Your task to perform on an android device: turn notification dots off Image 0: 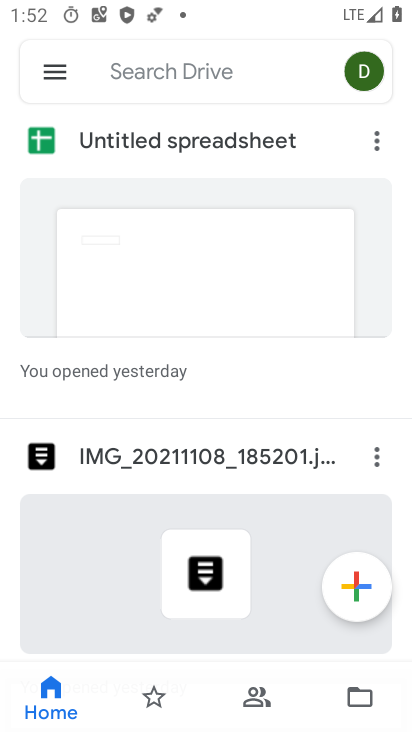
Step 0: press home button
Your task to perform on an android device: turn notification dots off Image 1: 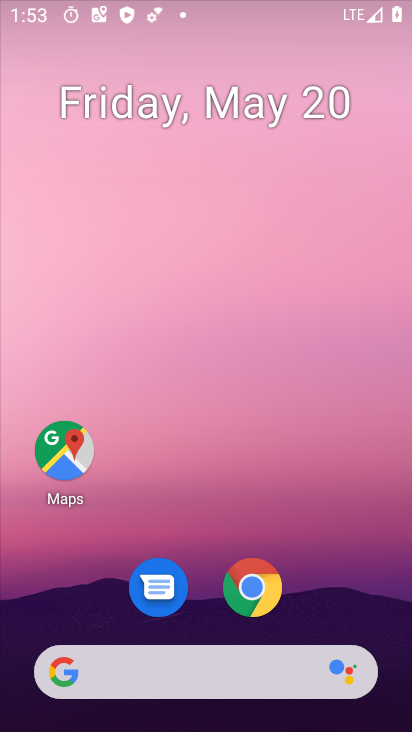
Step 1: drag from (353, 563) to (238, 81)
Your task to perform on an android device: turn notification dots off Image 2: 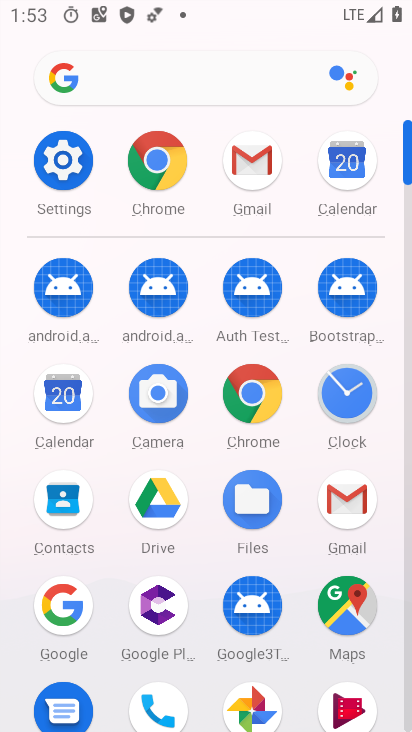
Step 2: click (63, 165)
Your task to perform on an android device: turn notification dots off Image 3: 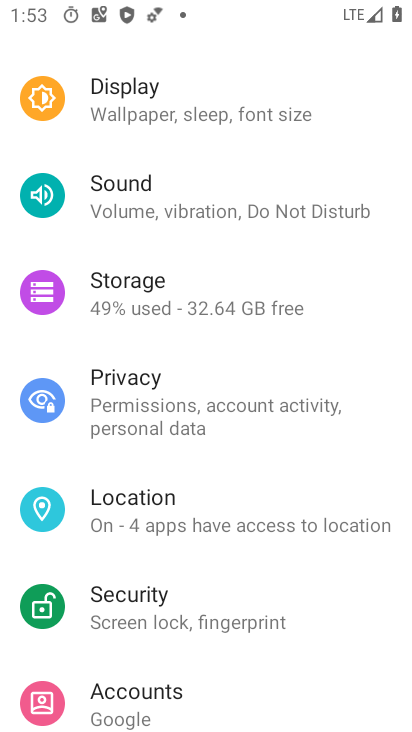
Step 3: drag from (281, 530) to (280, 727)
Your task to perform on an android device: turn notification dots off Image 4: 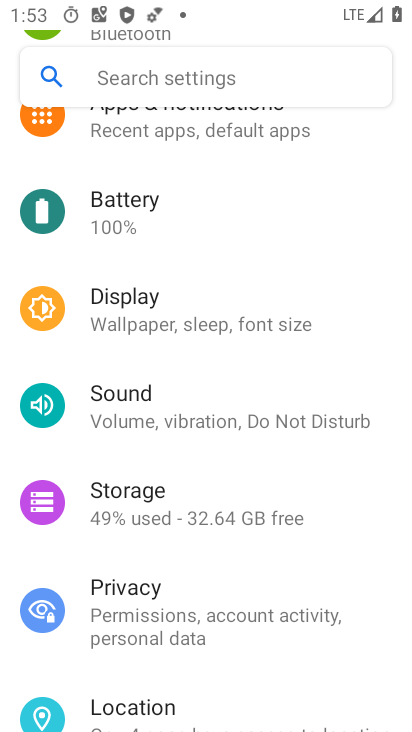
Step 4: drag from (191, 150) to (196, 592)
Your task to perform on an android device: turn notification dots off Image 5: 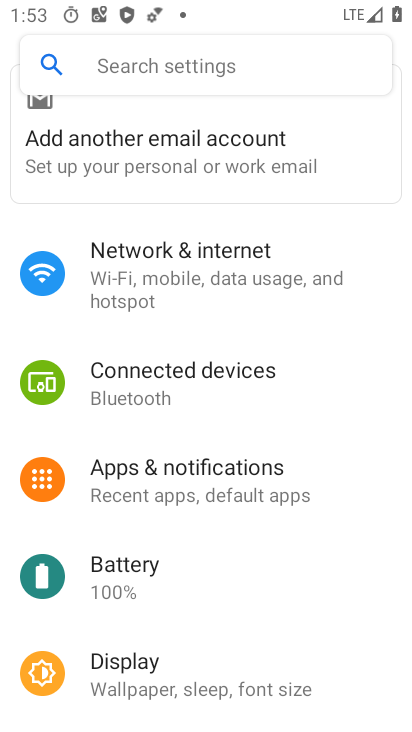
Step 5: click (184, 490)
Your task to perform on an android device: turn notification dots off Image 6: 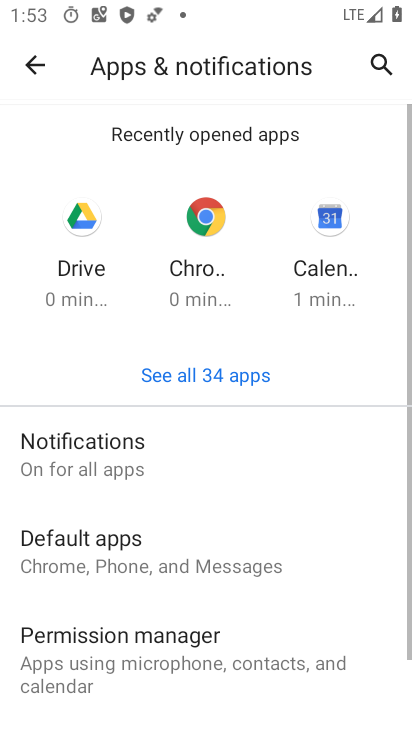
Step 6: click (134, 460)
Your task to perform on an android device: turn notification dots off Image 7: 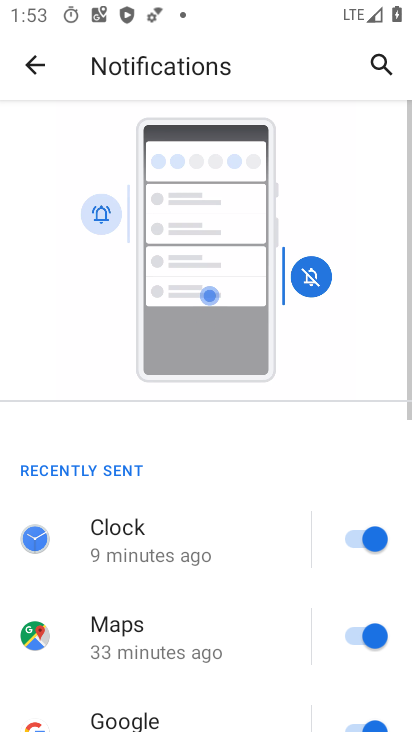
Step 7: drag from (205, 584) to (173, 31)
Your task to perform on an android device: turn notification dots off Image 8: 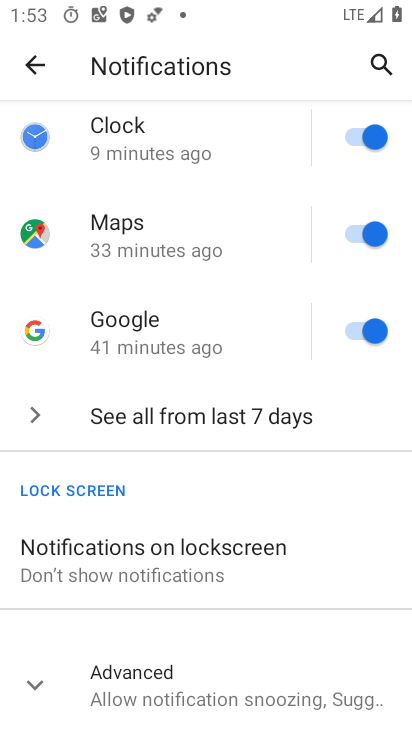
Step 8: click (153, 659)
Your task to perform on an android device: turn notification dots off Image 9: 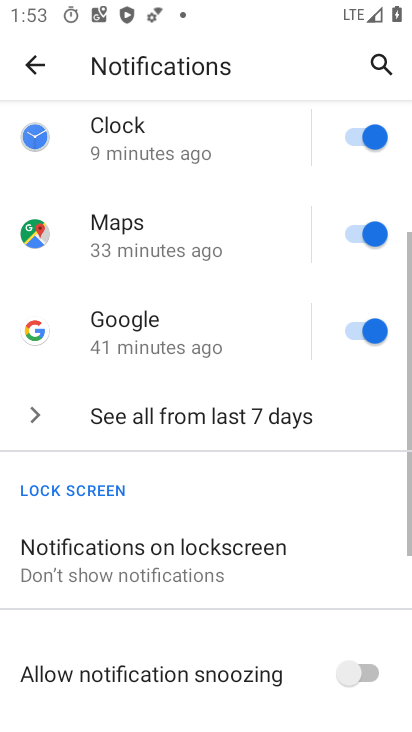
Step 9: task complete